Your task to perform on an android device: Open the phone app and click the voicemail tab. Image 0: 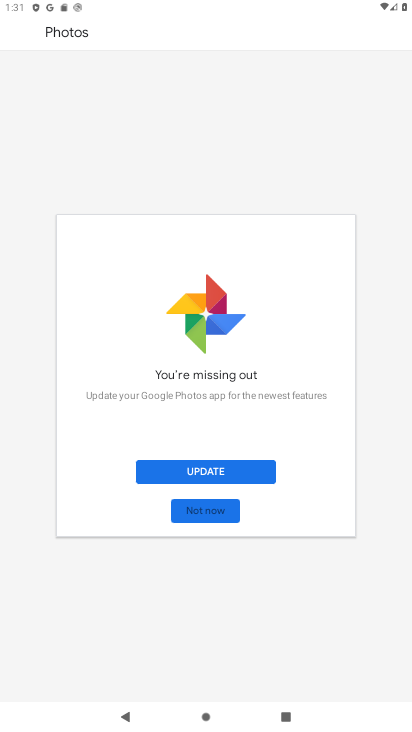
Step 0: press home button
Your task to perform on an android device: Open the phone app and click the voicemail tab. Image 1: 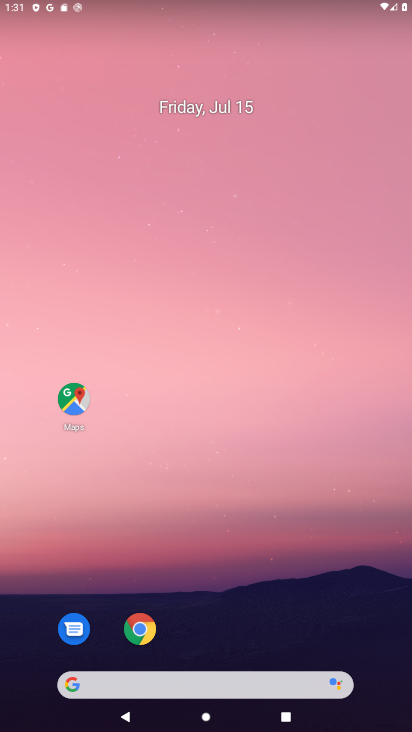
Step 1: drag from (172, 598) to (242, 5)
Your task to perform on an android device: Open the phone app and click the voicemail tab. Image 2: 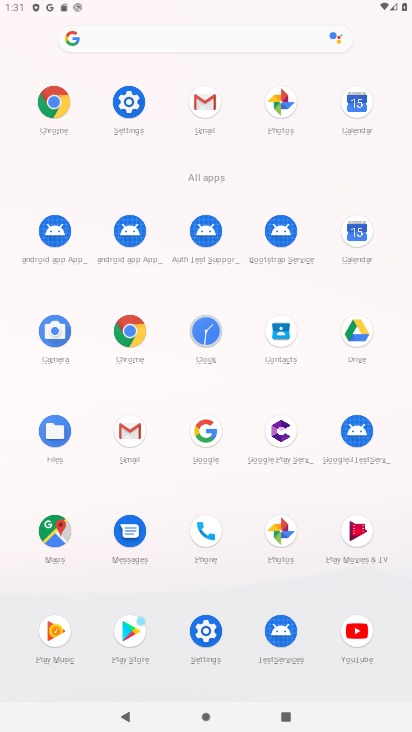
Step 2: click (205, 532)
Your task to perform on an android device: Open the phone app and click the voicemail tab. Image 3: 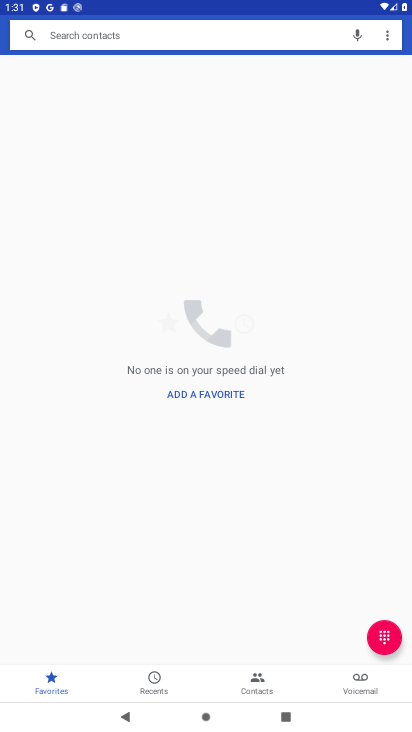
Step 3: click (356, 683)
Your task to perform on an android device: Open the phone app and click the voicemail tab. Image 4: 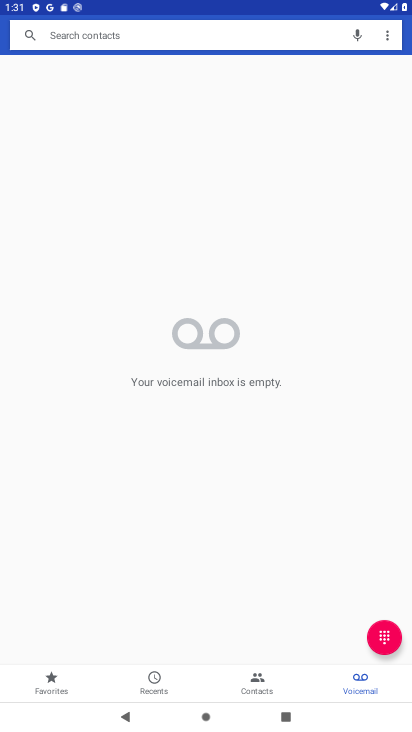
Step 4: task complete